Your task to perform on an android device: toggle improve location accuracy Image 0: 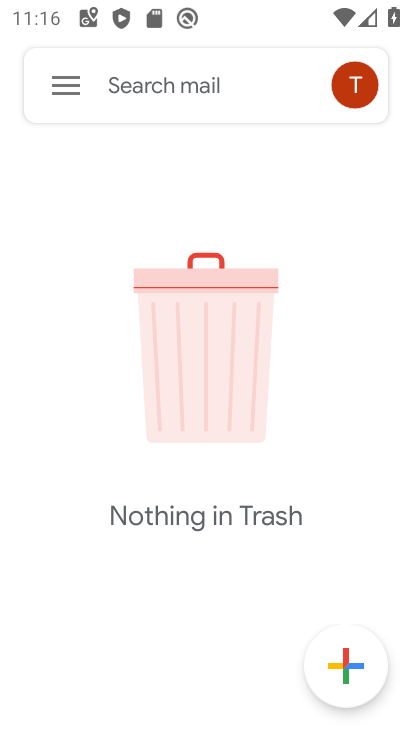
Step 0: press home button
Your task to perform on an android device: toggle improve location accuracy Image 1: 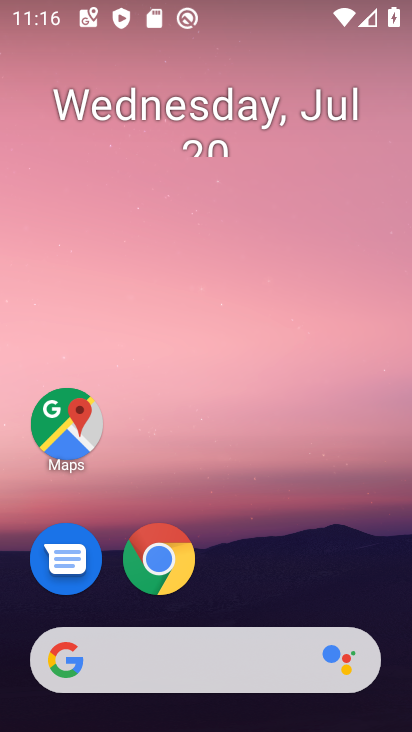
Step 1: drag from (249, 678) to (259, 223)
Your task to perform on an android device: toggle improve location accuracy Image 2: 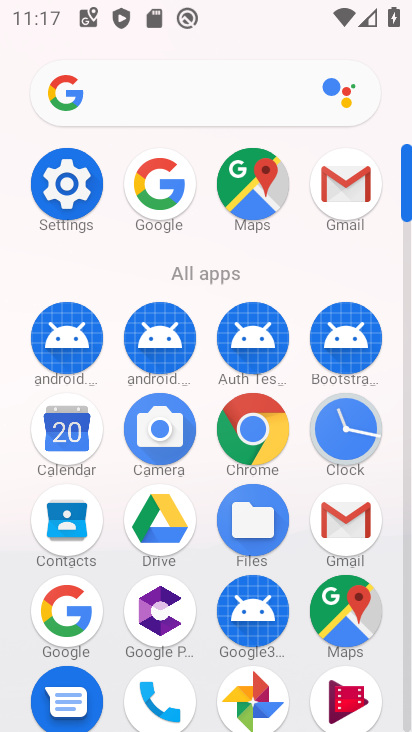
Step 2: click (68, 180)
Your task to perform on an android device: toggle improve location accuracy Image 3: 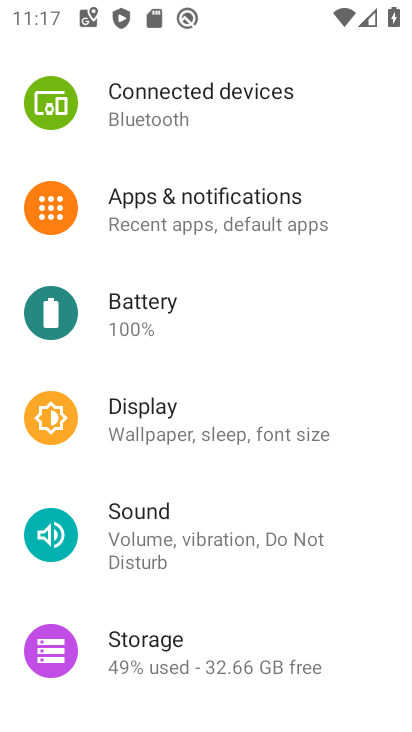
Step 3: drag from (156, 264) to (171, 187)
Your task to perform on an android device: toggle improve location accuracy Image 4: 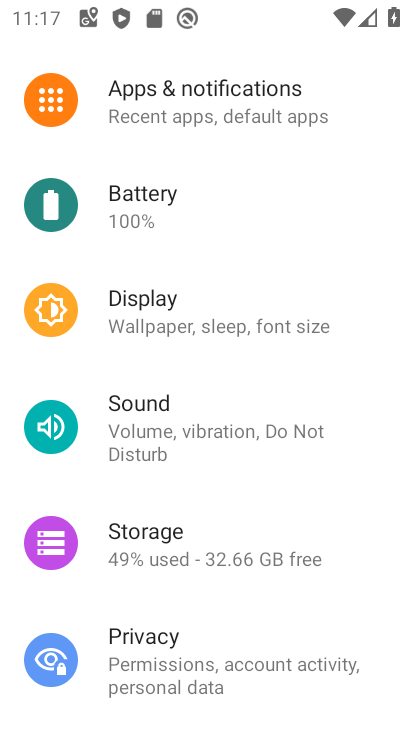
Step 4: drag from (157, 527) to (204, 256)
Your task to perform on an android device: toggle improve location accuracy Image 5: 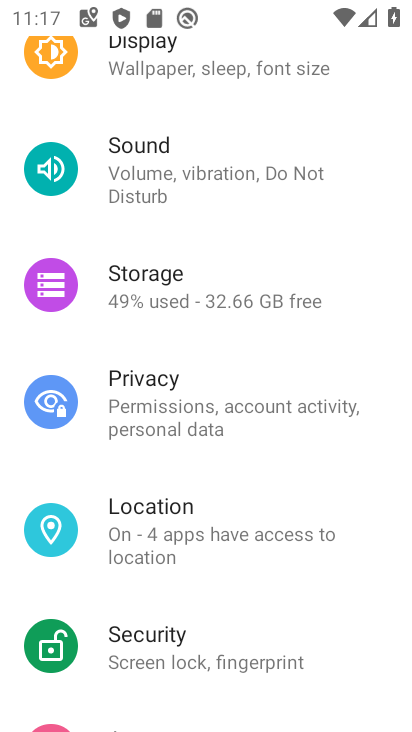
Step 5: click (192, 529)
Your task to perform on an android device: toggle improve location accuracy Image 6: 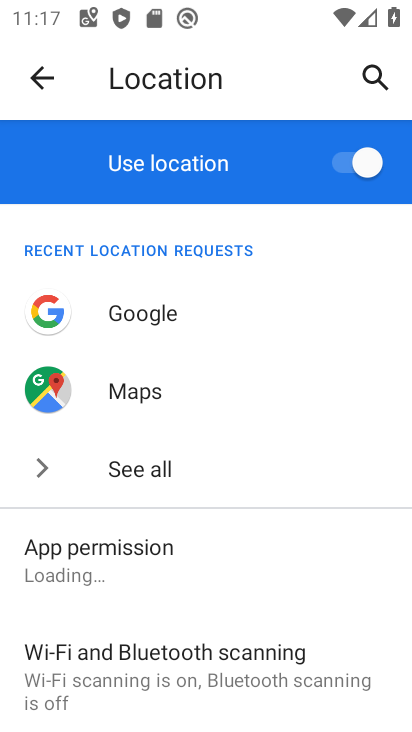
Step 6: drag from (192, 529) to (233, 279)
Your task to perform on an android device: toggle improve location accuracy Image 7: 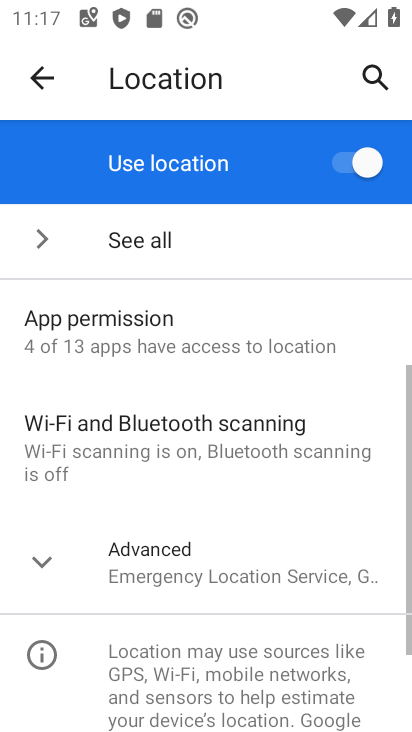
Step 7: click (251, 563)
Your task to perform on an android device: toggle improve location accuracy Image 8: 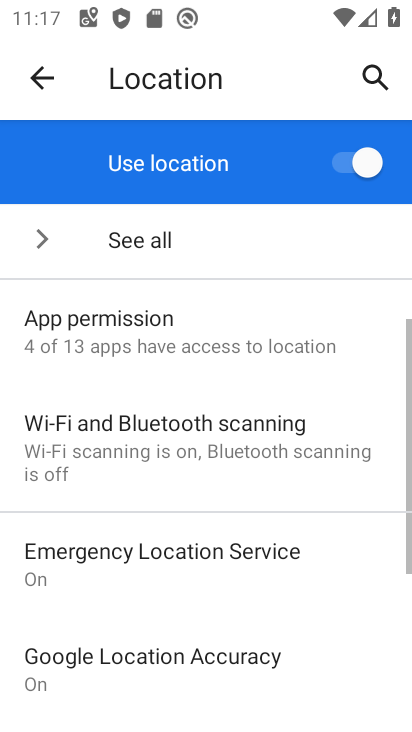
Step 8: drag from (251, 563) to (251, 322)
Your task to perform on an android device: toggle improve location accuracy Image 9: 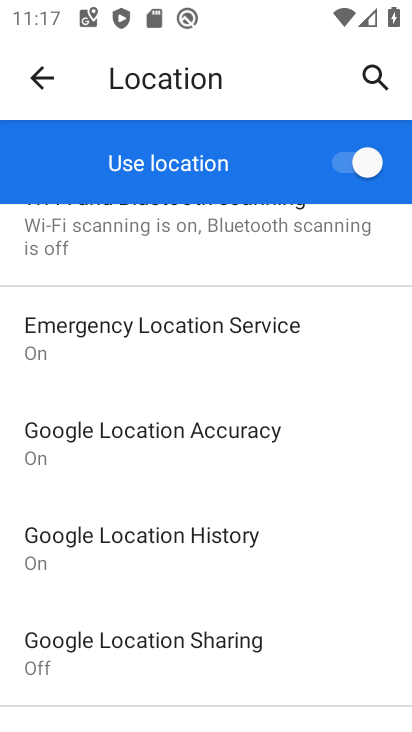
Step 9: click (235, 440)
Your task to perform on an android device: toggle improve location accuracy Image 10: 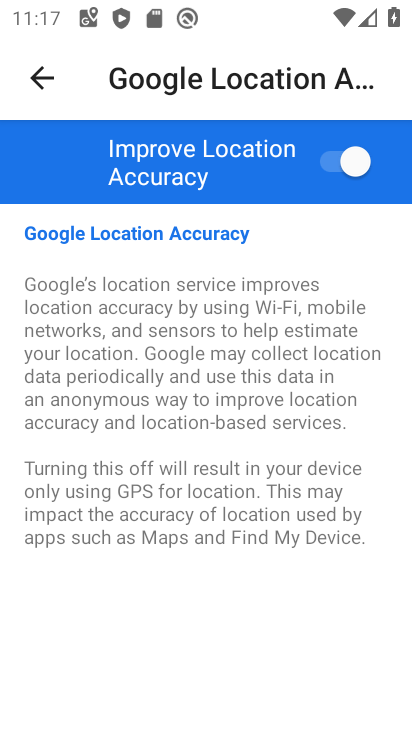
Step 10: click (318, 163)
Your task to perform on an android device: toggle improve location accuracy Image 11: 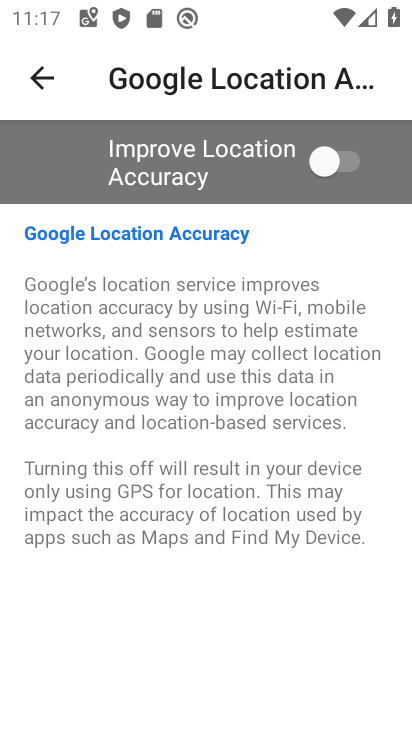
Step 11: task complete